Your task to perform on an android device: Play the last video I watched on Youtube Image 0: 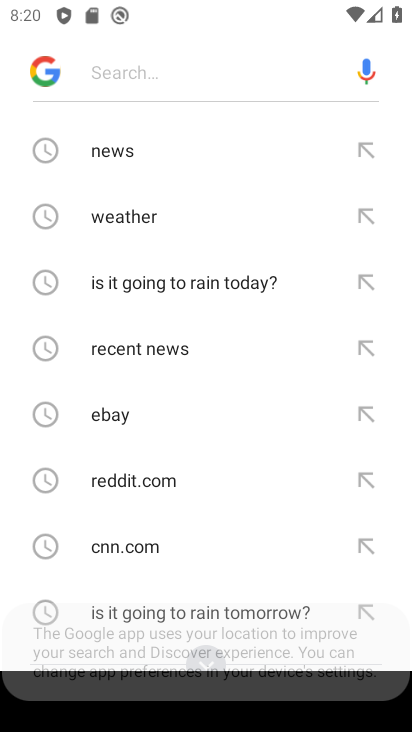
Step 0: press home button
Your task to perform on an android device: Play the last video I watched on Youtube Image 1: 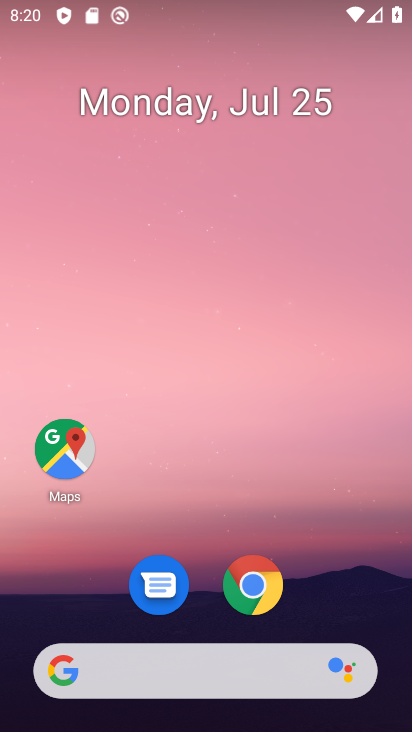
Step 1: drag from (221, 625) to (299, 108)
Your task to perform on an android device: Play the last video I watched on Youtube Image 2: 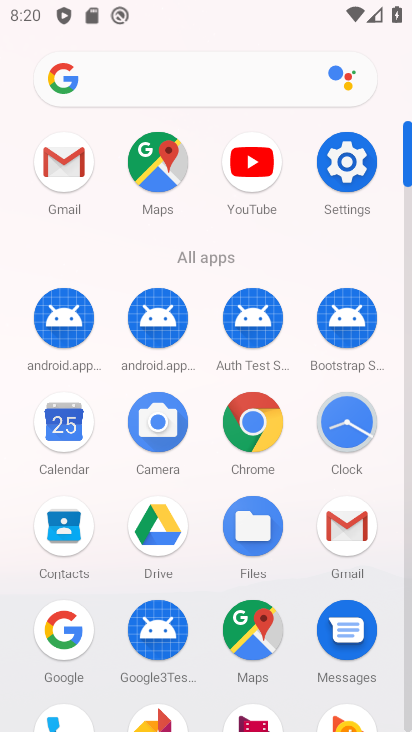
Step 2: drag from (295, 677) to (396, 239)
Your task to perform on an android device: Play the last video I watched on Youtube Image 3: 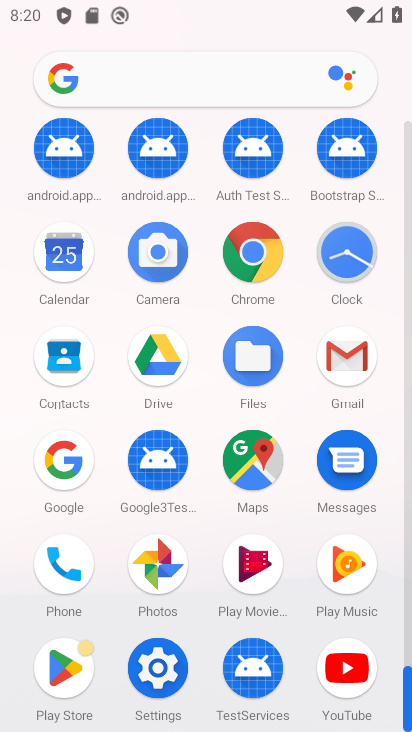
Step 3: click (342, 655)
Your task to perform on an android device: Play the last video I watched on Youtube Image 4: 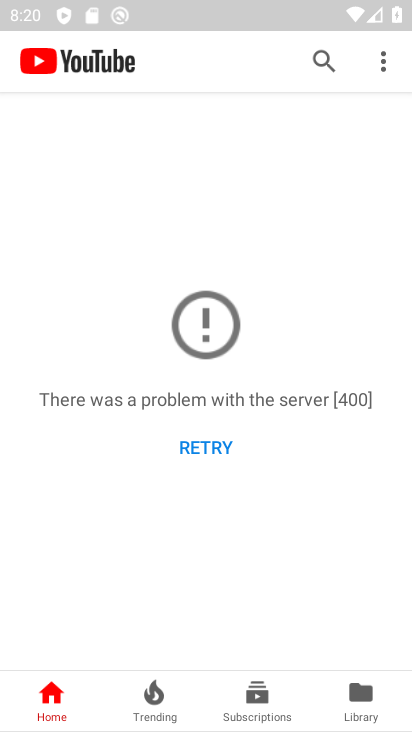
Step 4: click (199, 445)
Your task to perform on an android device: Play the last video I watched on Youtube Image 5: 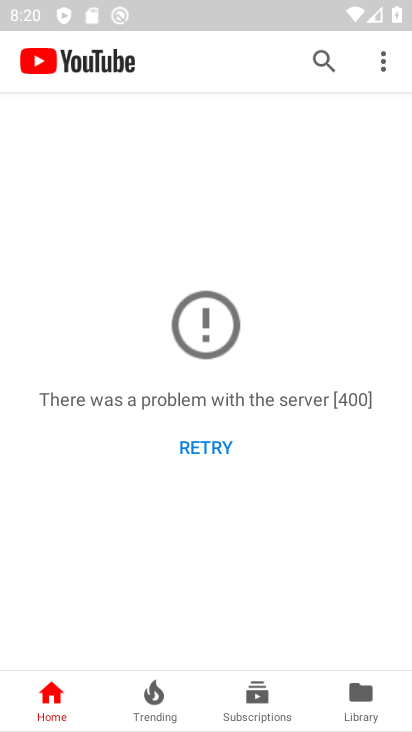
Step 5: click (360, 694)
Your task to perform on an android device: Play the last video I watched on Youtube Image 6: 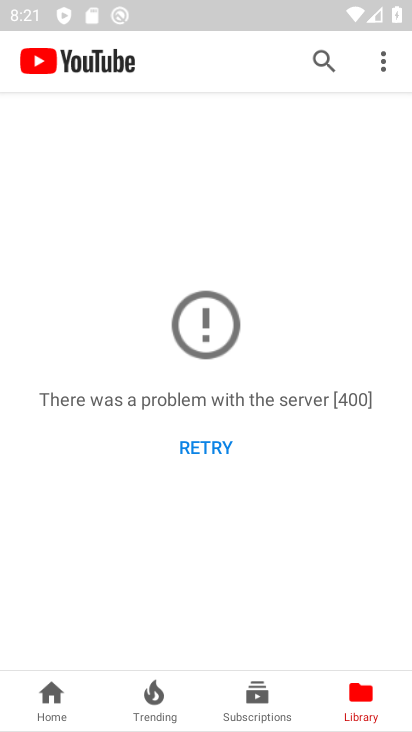
Step 6: task complete